Your task to perform on an android device: turn off smart reply in the gmail app Image 0: 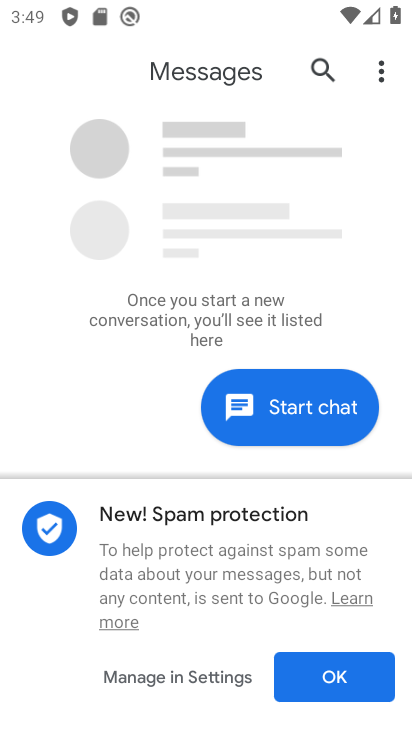
Step 0: press home button
Your task to perform on an android device: turn off smart reply in the gmail app Image 1: 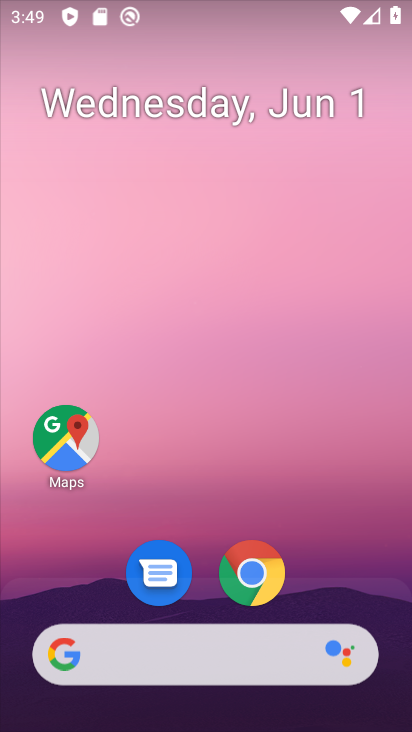
Step 1: drag from (203, 607) to (259, 15)
Your task to perform on an android device: turn off smart reply in the gmail app Image 2: 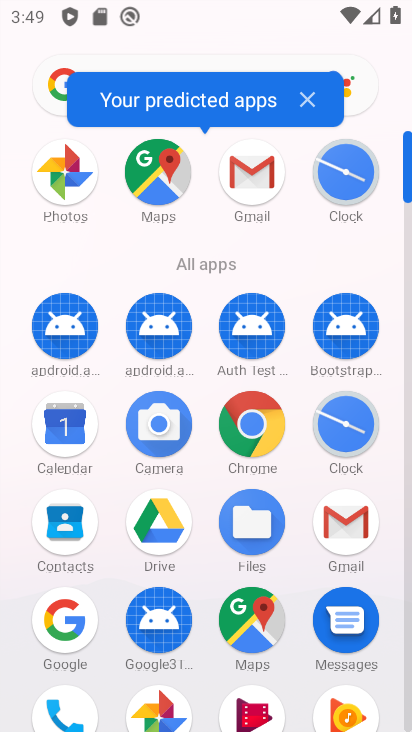
Step 2: click (352, 541)
Your task to perform on an android device: turn off smart reply in the gmail app Image 3: 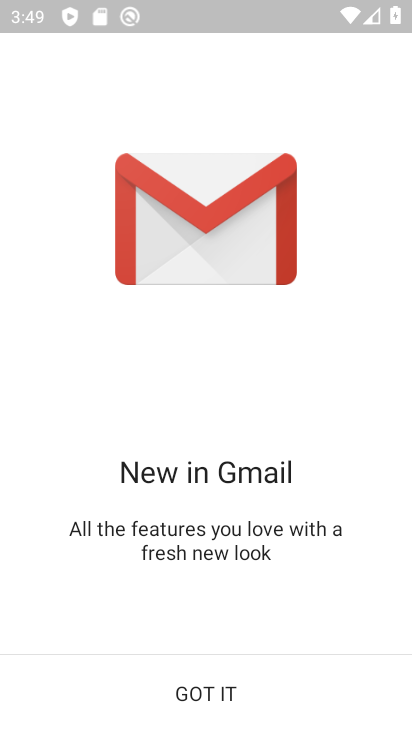
Step 3: click (260, 696)
Your task to perform on an android device: turn off smart reply in the gmail app Image 4: 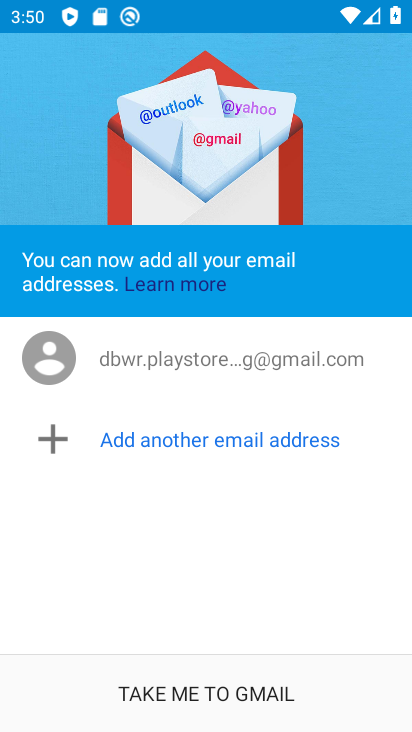
Step 4: click (247, 707)
Your task to perform on an android device: turn off smart reply in the gmail app Image 5: 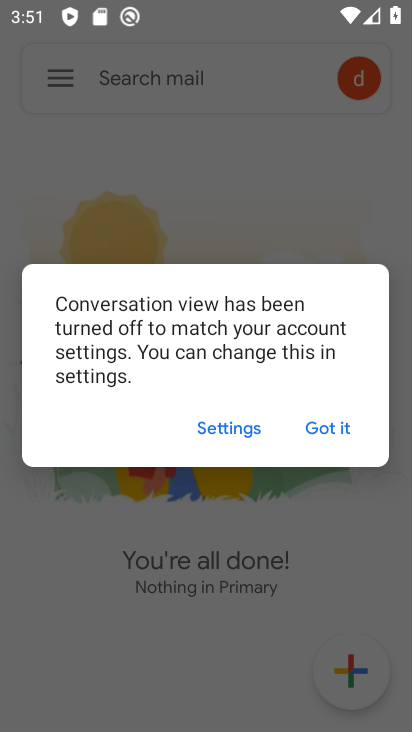
Step 5: click (338, 427)
Your task to perform on an android device: turn off smart reply in the gmail app Image 6: 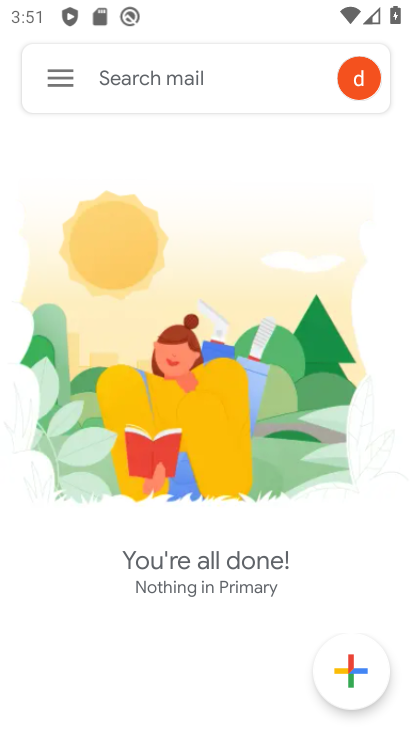
Step 6: click (60, 92)
Your task to perform on an android device: turn off smart reply in the gmail app Image 7: 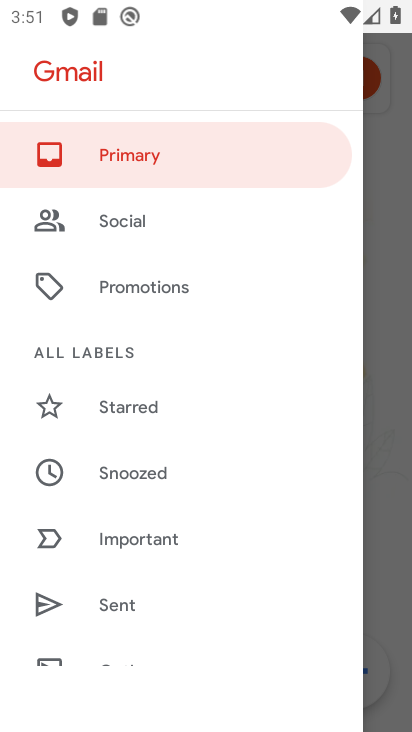
Step 7: drag from (122, 647) to (197, 234)
Your task to perform on an android device: turn off smart reply in the gmail app Image 8: 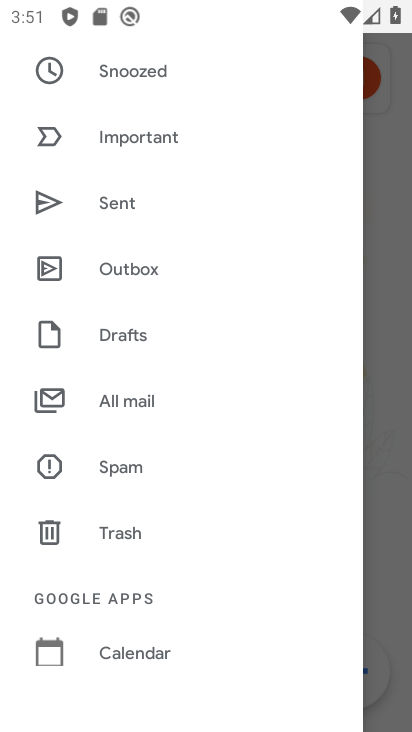
Step 8: drag from (150, 646) to (182, 139)
Your task to perform on an android device: turn off smart reply in the gmail app Image 9: 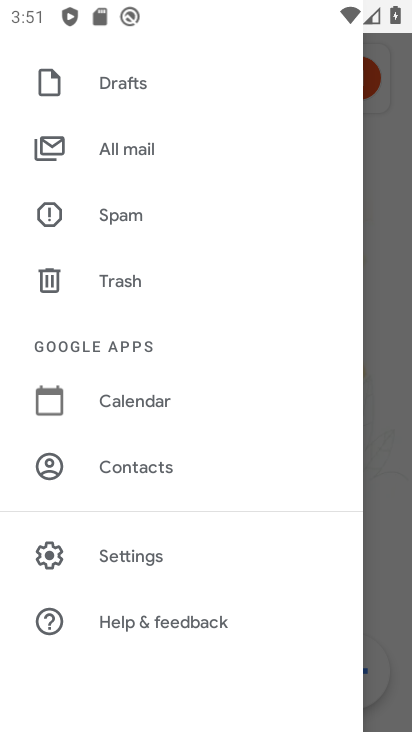
Step 9: click (142, 538)
Your task to perform on an android device: turn off smart reply in the gmail app Image 10: 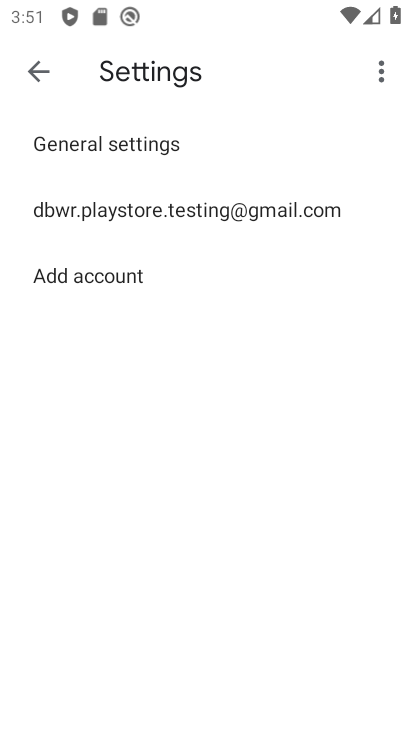
Step 10: click (99, 214)
Your task to perform on an android device: turn off smart reply in the gmail app Image 11: 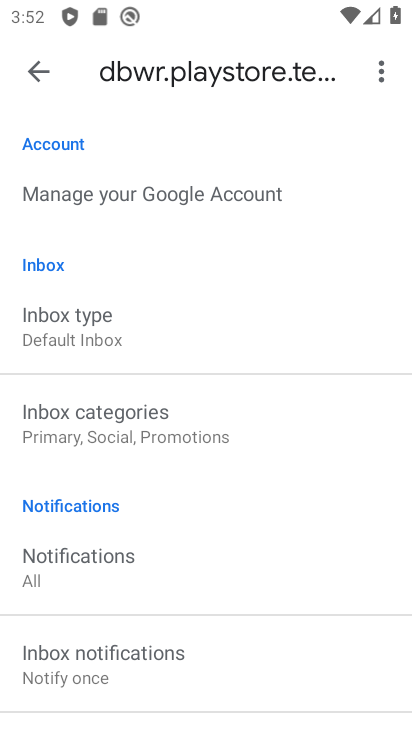
Step 11: drag from (149, 547) to (141, 252)
Your task to perform on an android device: turn off smart reply in the gmail app Image 12: 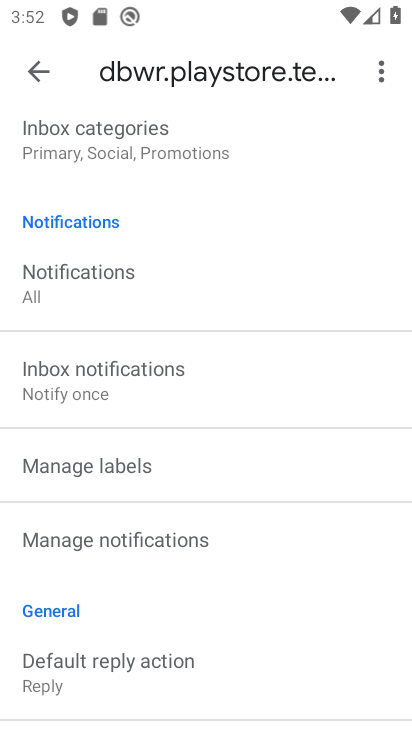
Step 12: drag from (159, 637) to (250, 294)
Your task to perform on an android device: turn off smart reply in the gmail app Image 13: 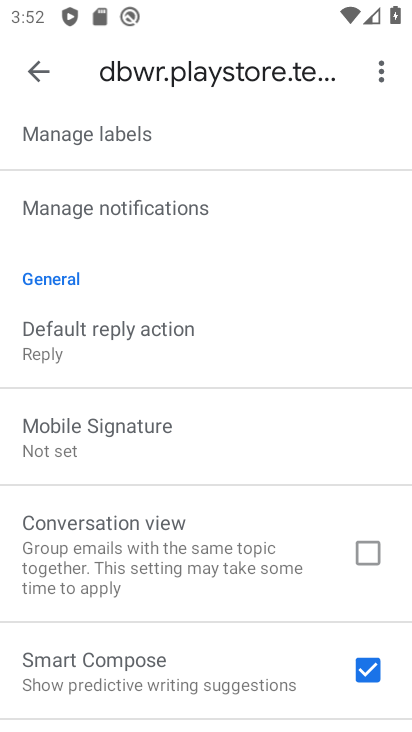
Step 13: drag from (181, 646) to (209, 336)
Your task to perform on an android device: turn off smart reply in the gmail app Image 14: 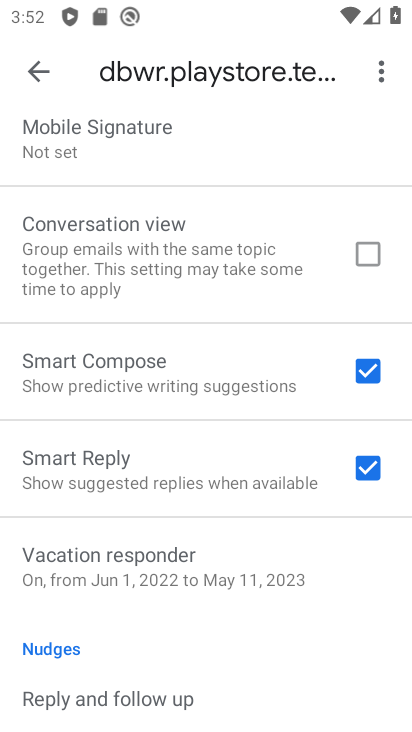
Step 14: click (372, 471)
Your task to perform on an android device: turn off smart reply in the gmail app Image 15: 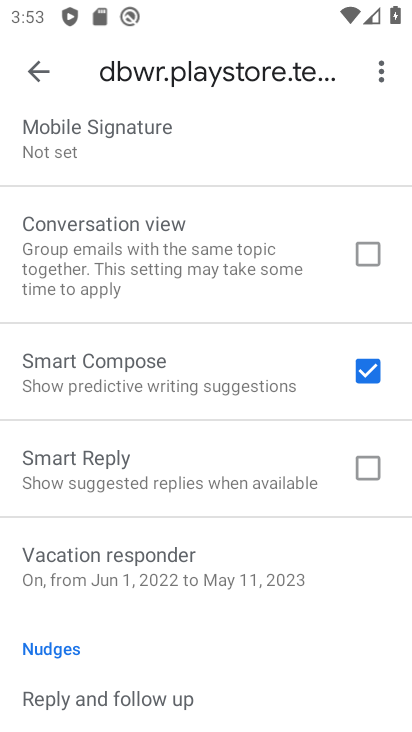
Step 15: task complete